Your task to perform on an android device: Open Android settings Image 0: 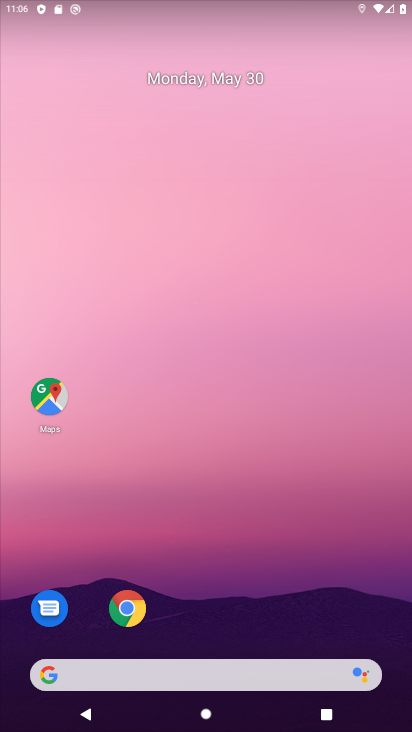
Step 0: drag from (319, 630) to (230, 0)
Your task to perform on an android device: Open Android settings Image 1: 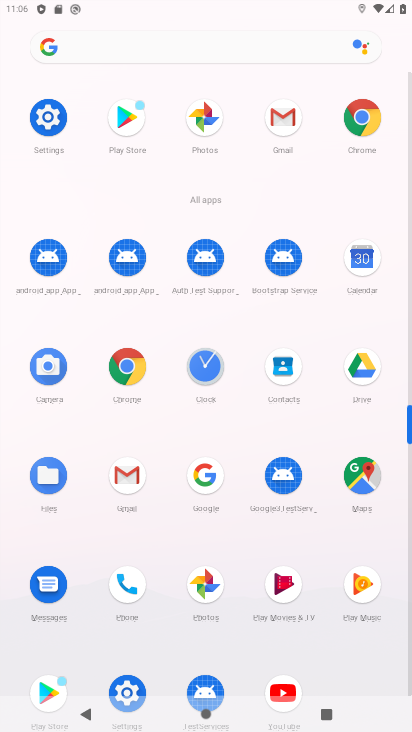
Step 1: click (49, 132)
Your task to perform on an android device: Open Android settings Image 2: 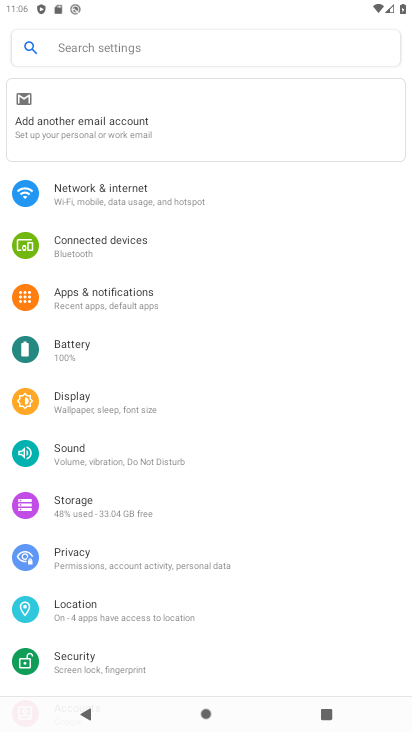
Step 2: task complete